Your task to perform on an android device: See recent photos Image 0: 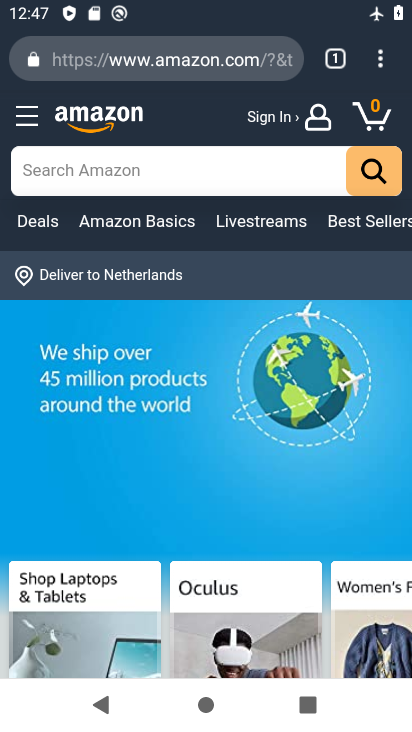
Step 0: press home button
Your task to perform on an android device: See recent photos Image 1: 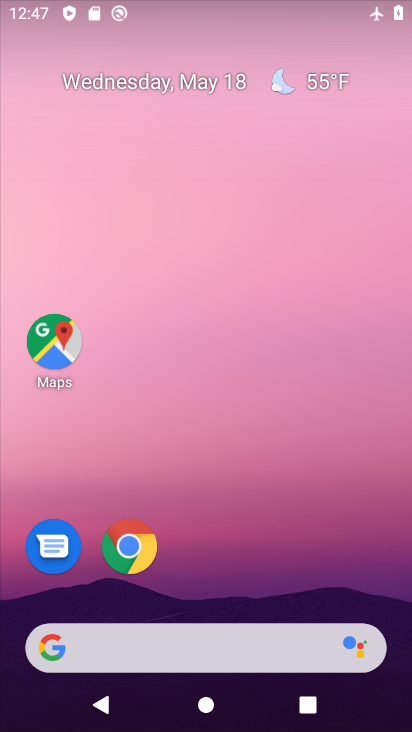
Step 1: drag from (338, 558) to (344, 205)
Your task to perform on an android device: See recent photos Image 2: 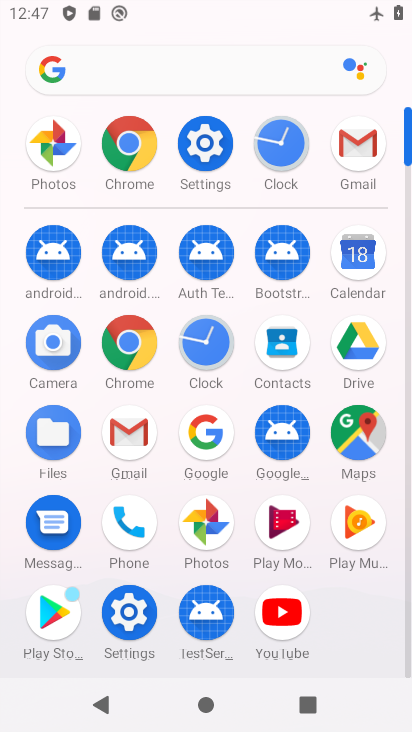
Step 2: drag from (362, 577) to (367, 244)
Your task to perform on an android device: See recent photos Image 3: 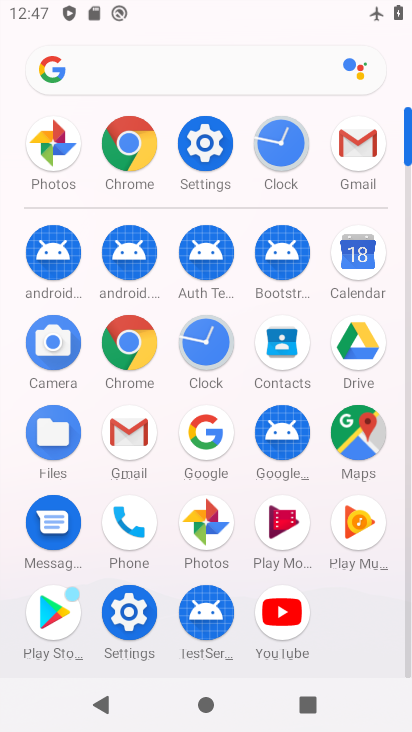
Step 3: click (207, 533)
Your task to perform on an android device: See recent photos Image 4: 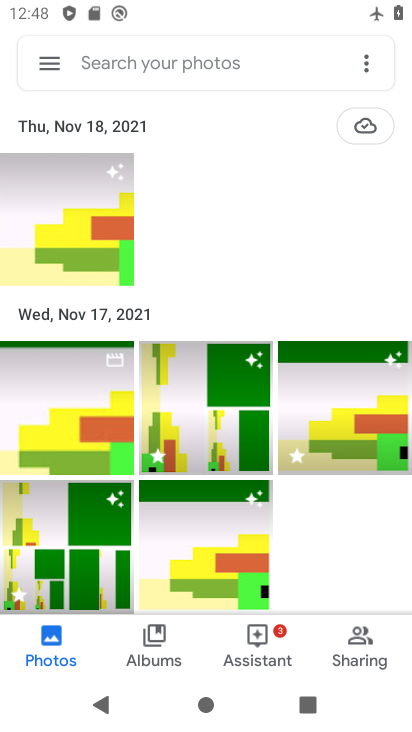
Step 4: task complete